Your task to perform on an android device: Go to battery settings Image 0: 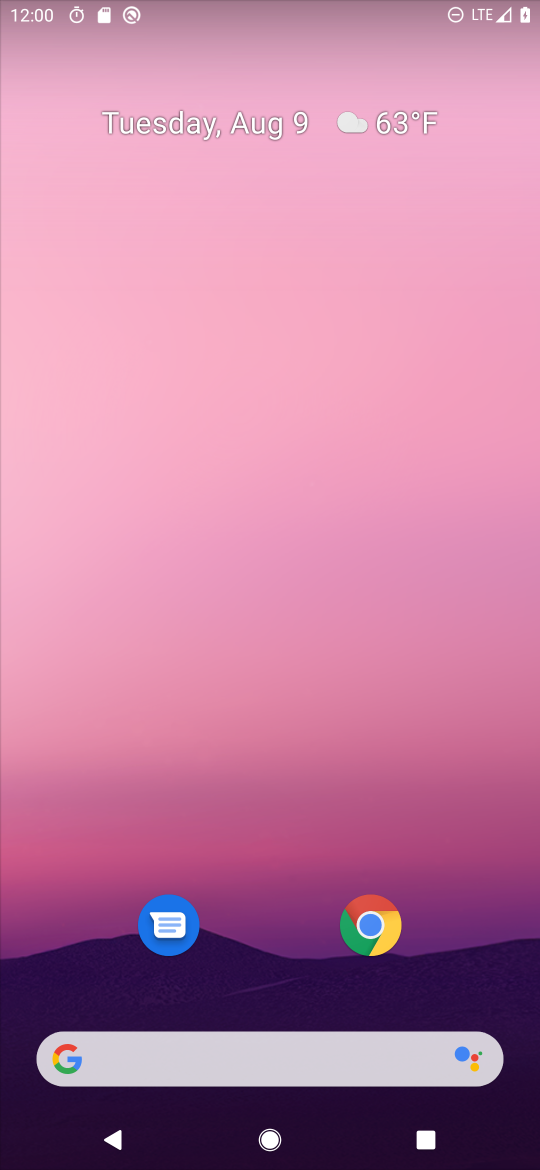
Step 0: press home button
Your task to perform on an android device: Go to battery settings Image 1: 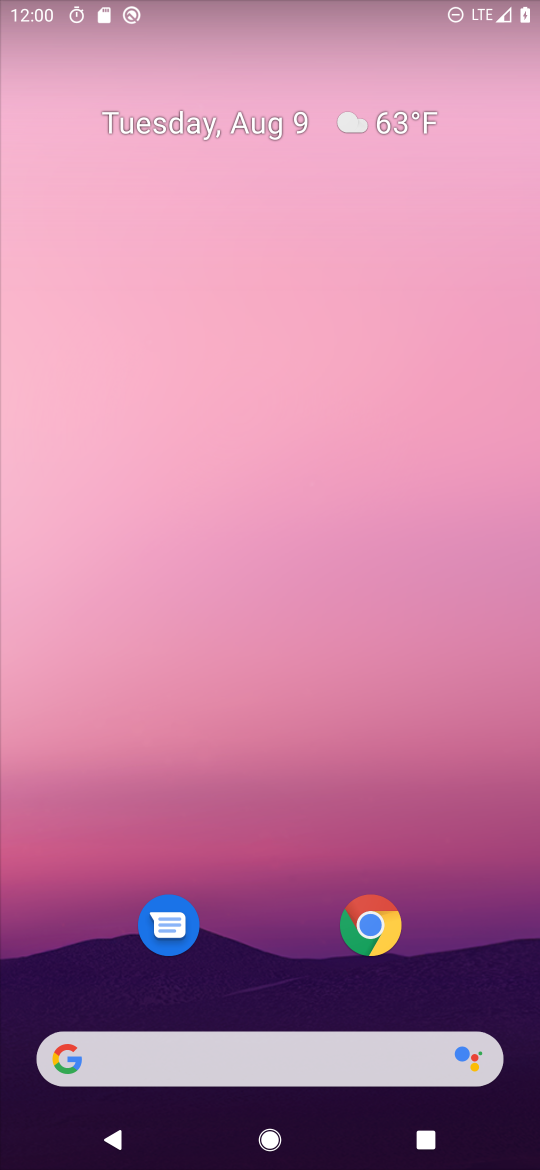
Step 1: press home button
Your task to perform on an android device: Go to battery settings Image 2: 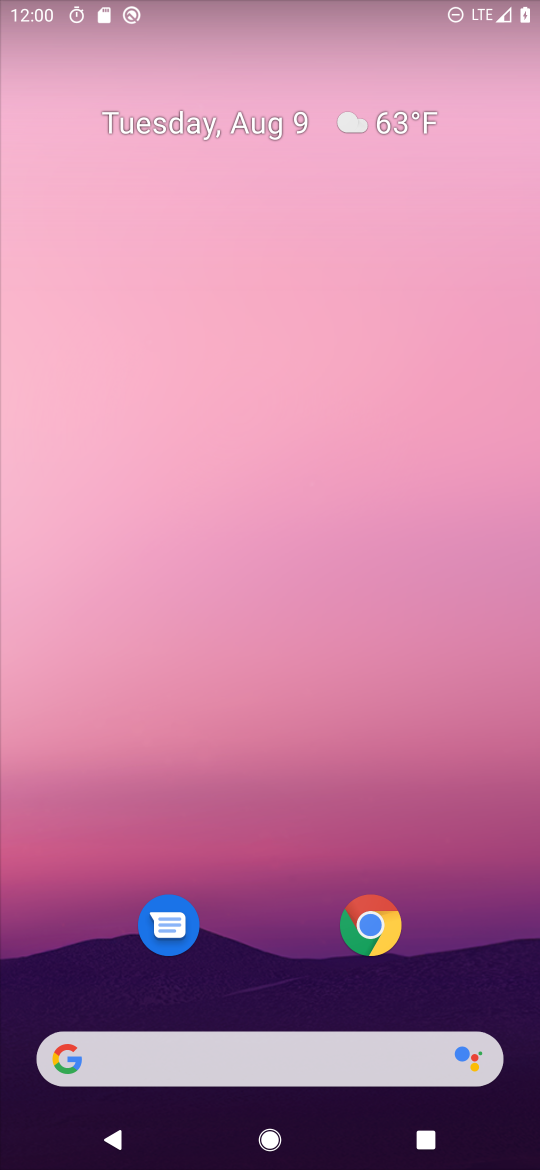
Step 2: drag from (317, 764) to (458, 144)
Your task to perform on an android device: Go to battery settings Image 3: 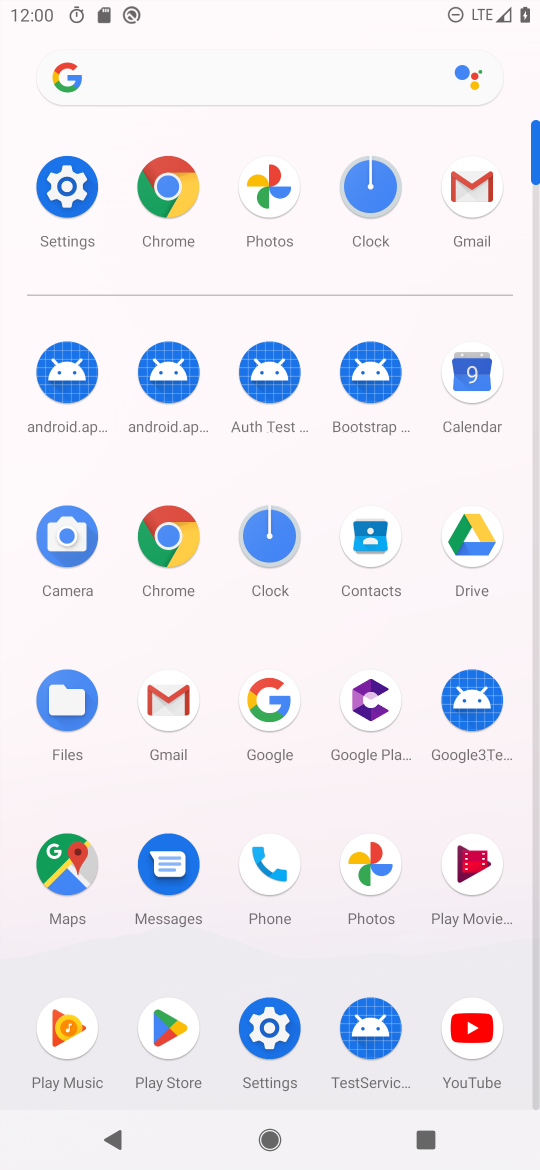
Step 3: click (277, 1014)
Your task to perform on an android device: Go to battery settings Image 4: 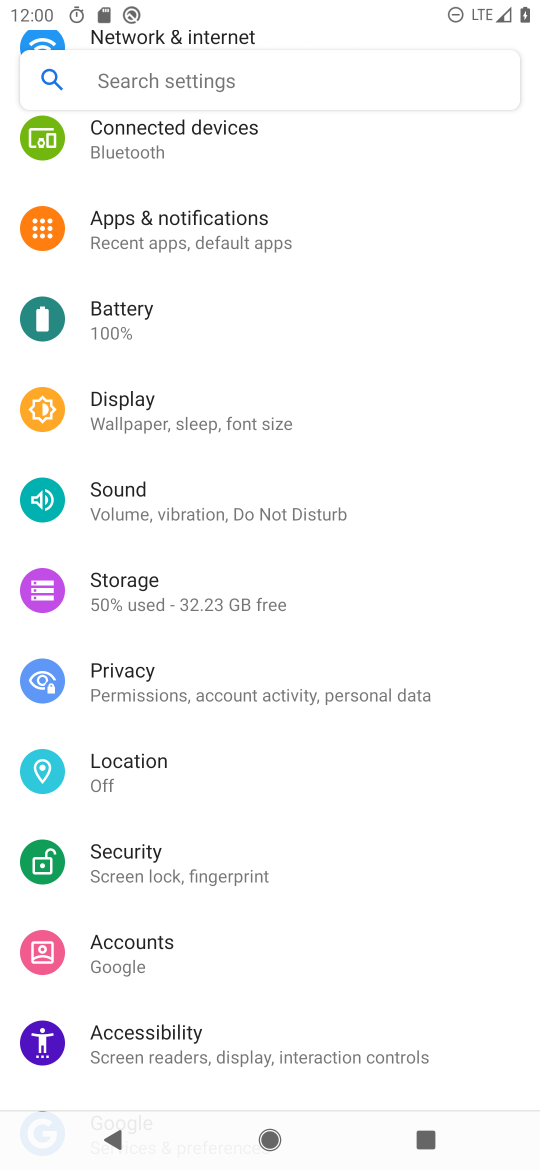
Step 4: click (148, 327)
Your task to perform on an android device: Go to battery settings Image 5: 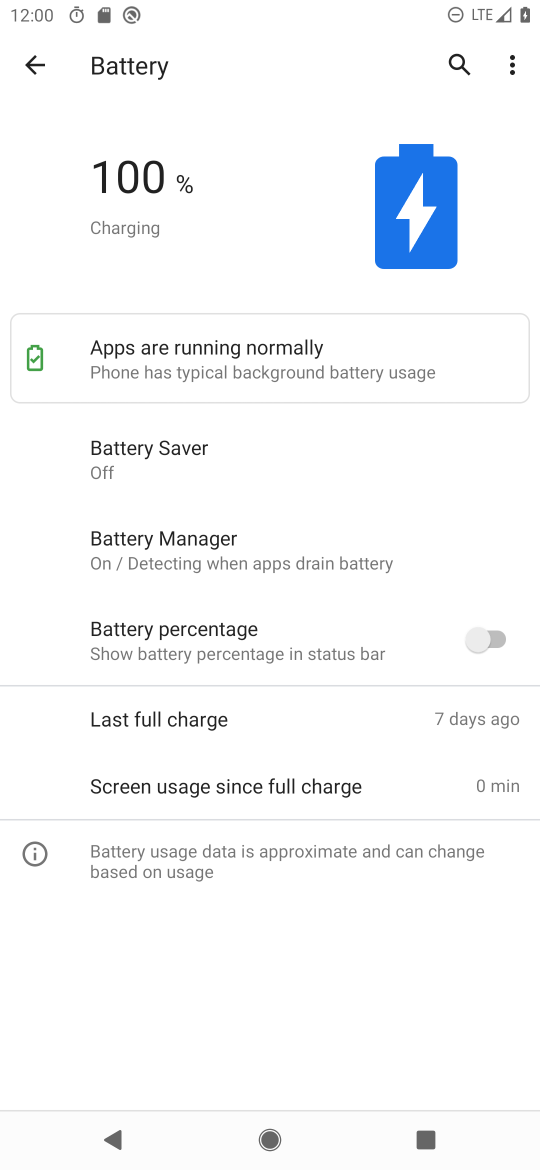
Step 5: task complete